Your task to perform on an android device: turn on bluetooth scan Image 0: 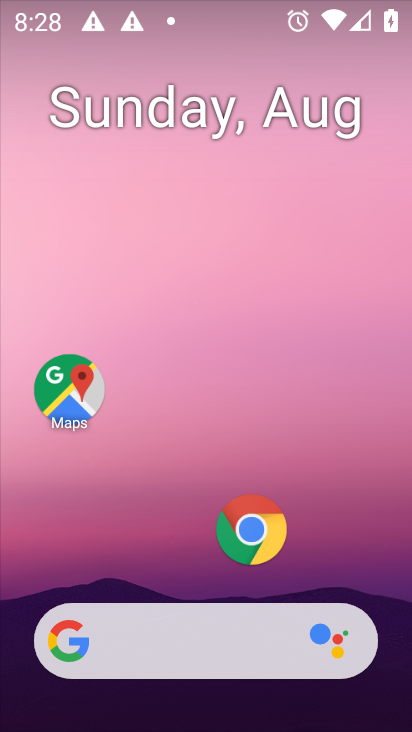
Step 0: click (204, 305)
Your task to perform on an android device: turn on bluetooth scan Image 1: 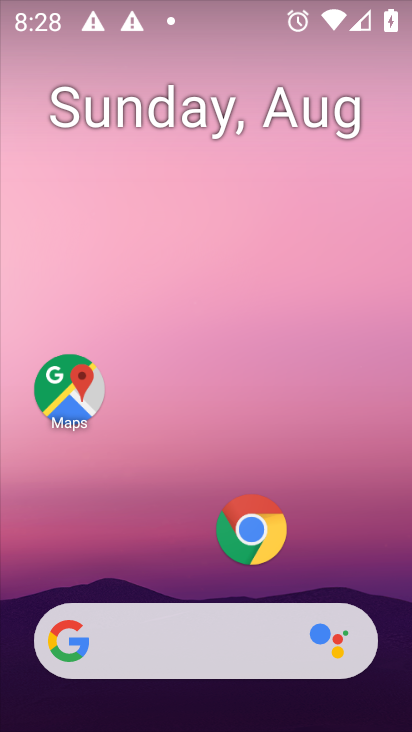
Step 1: click (293, 8)
Your task to perform on an android device: turn on bluetooth scan Image 2: 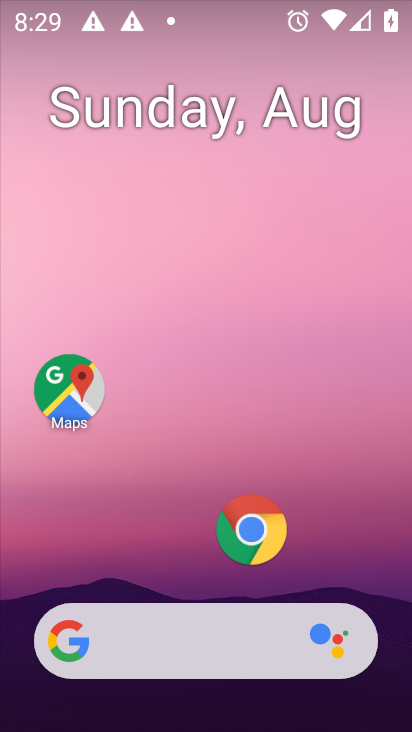
Step 2: drag from (164, 443) to (205, 166)
Your task to perform on an android device: turn on bluetooth scan Image 3: 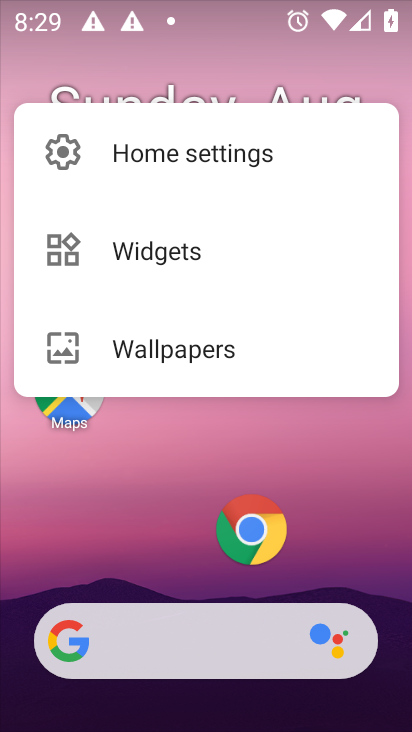
Step 3: click (147, 516)
Your task to perform on an android device: turn on bluetooth scan Image 4: 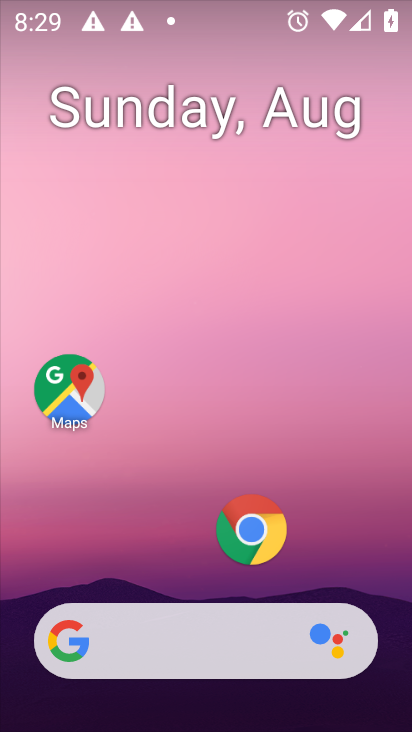
Step 4: drag from (191, 533) to (210, 249)
Your task to perform on an android device: turn on bluetooth scan Image 5: 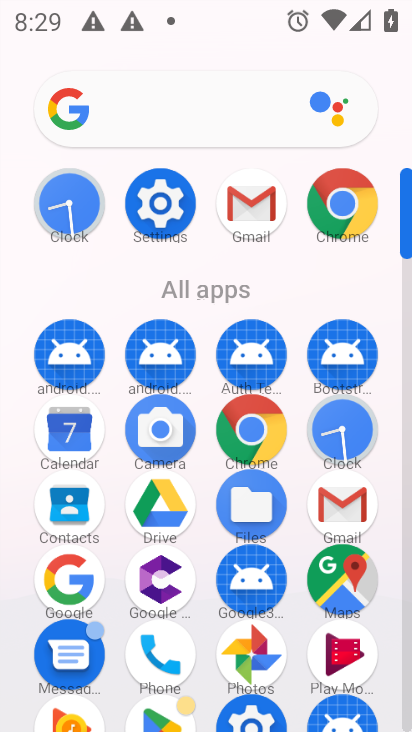
Step 5: click (167, 226)
Your task to perform on an android device: turn on bluetooth scan Image 6: 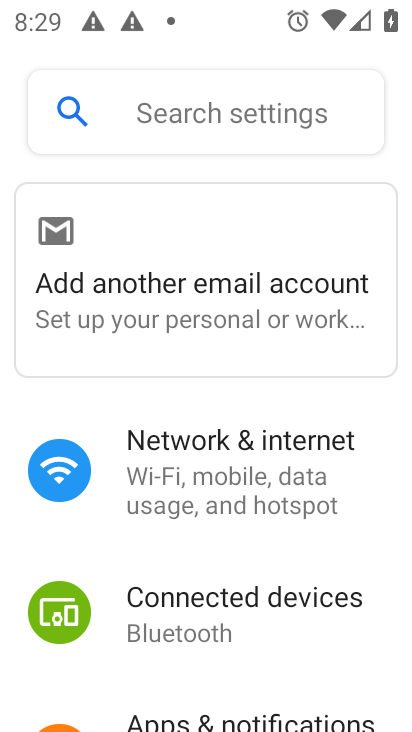
Step 6: drag from (196, 601) to (209, 393)
Your task to perform on an android device: turn on bluetooth scan Image 7: 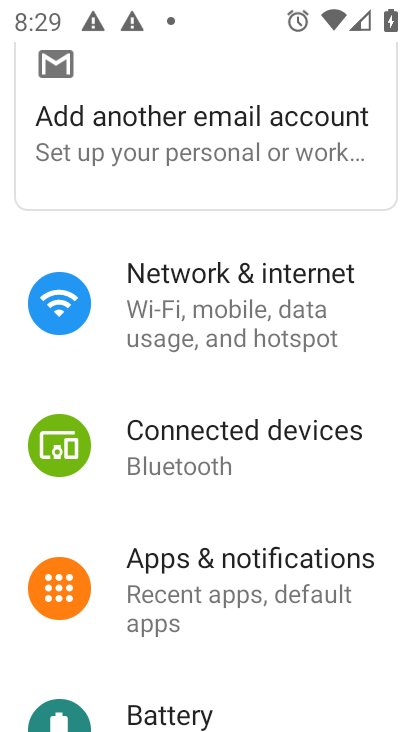
Step 7: drag from (230, 617) to (235, 400)
Your task to perform on an android device: turn on bluetooth scan Image 8: 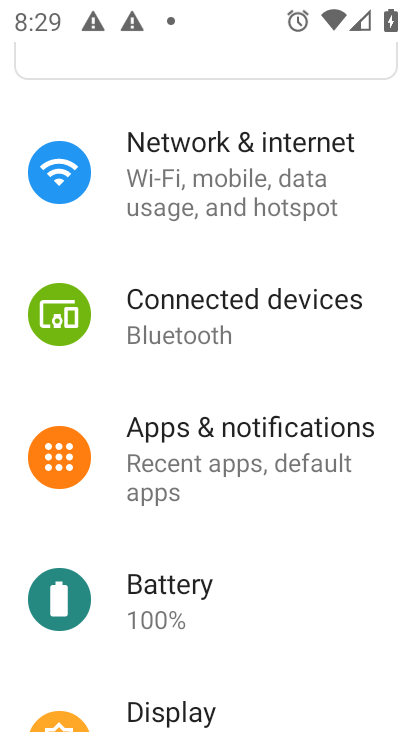
Step 8: drag from (220, 503) to (232, 358)
Your task to perform on an android device: turn on bluetooth scan Image 9: 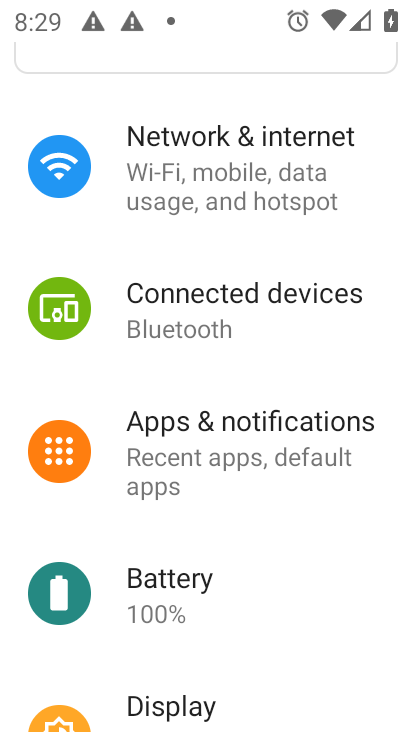
Step 9: drag from (230, 594) to (279, 62)
Your task to perform on an android device: turn on bluetooth scan Image 10: 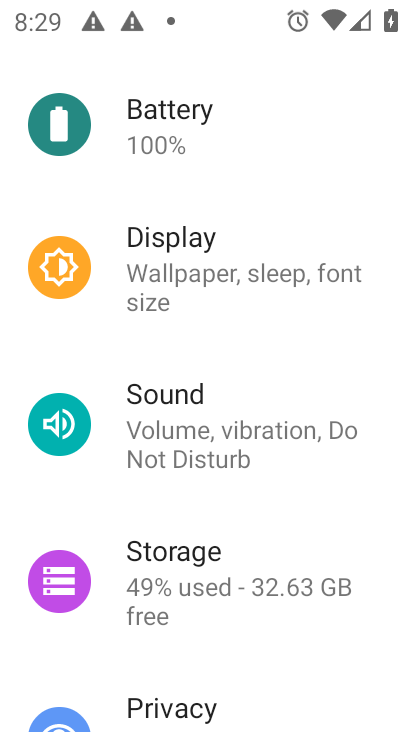
Step 10: drag from (181, 716) to (193, 399)
Your task to perform on an android device: turn on bluetooth scan Image 11: 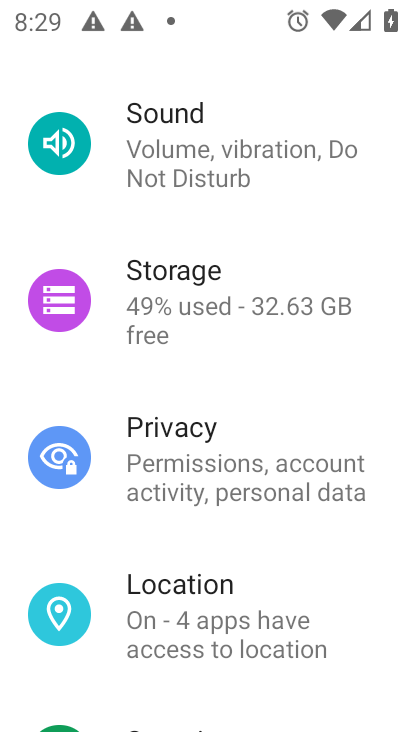
Step 11: click (201, 616)
Your task to perform on an android device: turn on bluetooth scan Image 12: 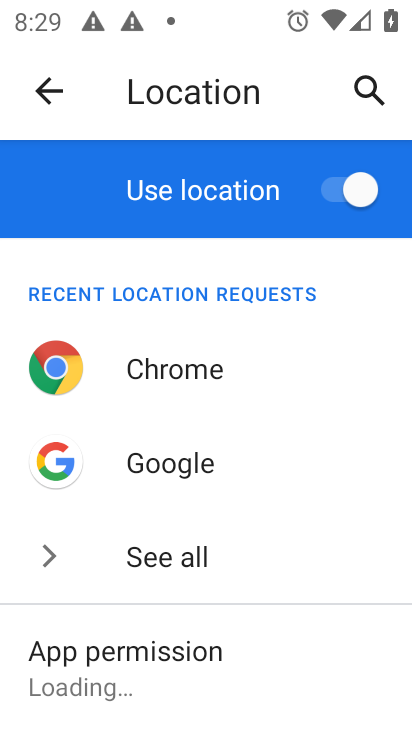
Step 12: drag from (171, 648) to (169, 346)
Your task to perform on an android device: turn on bluetooth scan Image 13: 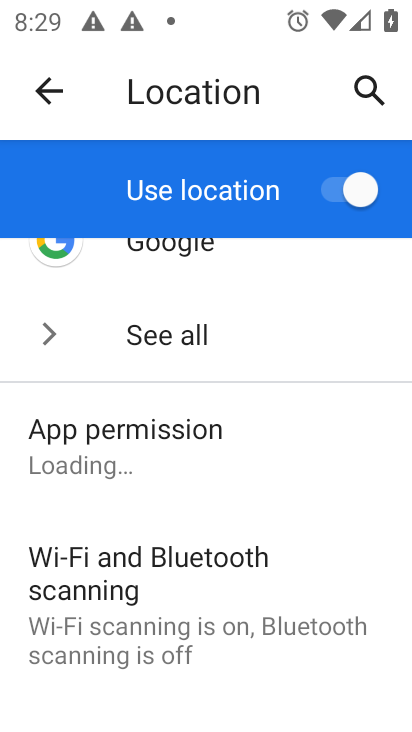
Step 13: click (123, 583)
Your task to perform on an android device: turn on bluetooth scan Image 14: 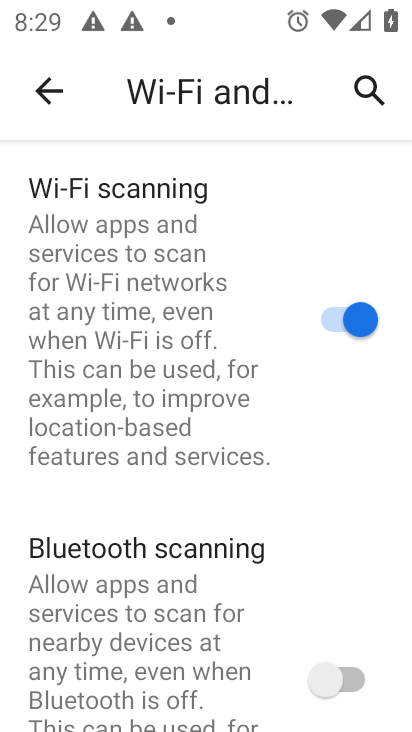
Step 14: click (363, 668)
Your task to perform on an android device: turn on bluetooth scan Image 15: 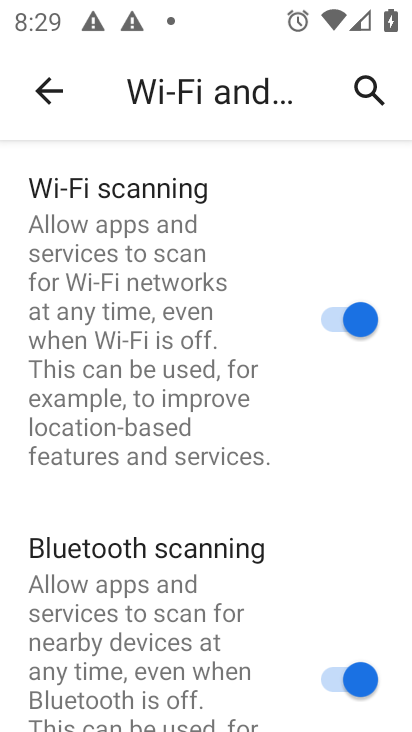
Step 15: task complete